Your task to perform on an android device: Do I have any events tomorrow? Image 0: 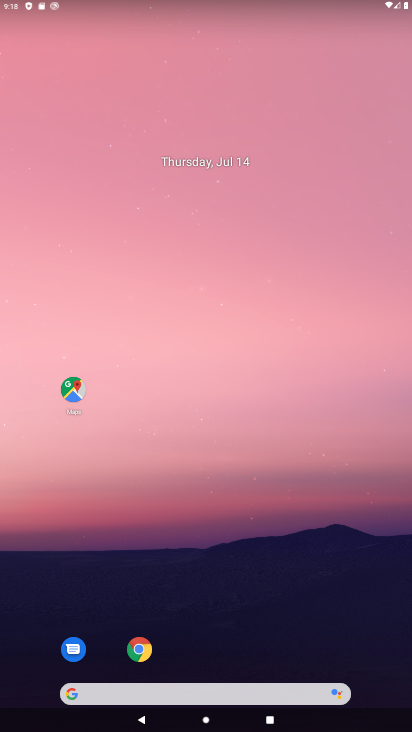
Step 0: drag from (211, 636) to (227, 247)
Your task to perform on an android device: Do I have any events tomorrow? Image 1: 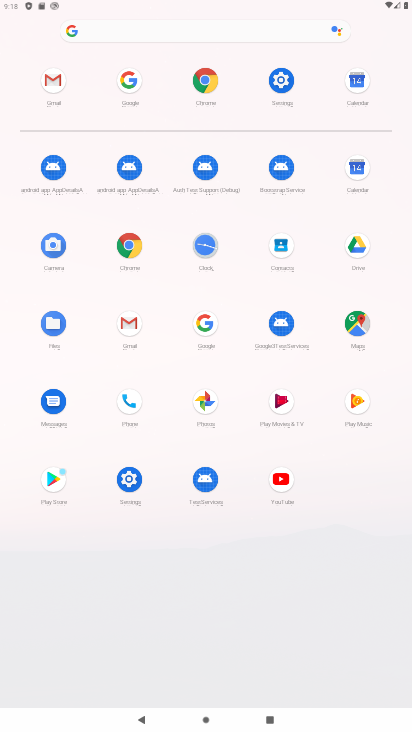
Step 1: click (356, 168)
Your task to perform on an android device: Do I have any events tomorrow? Image 2: 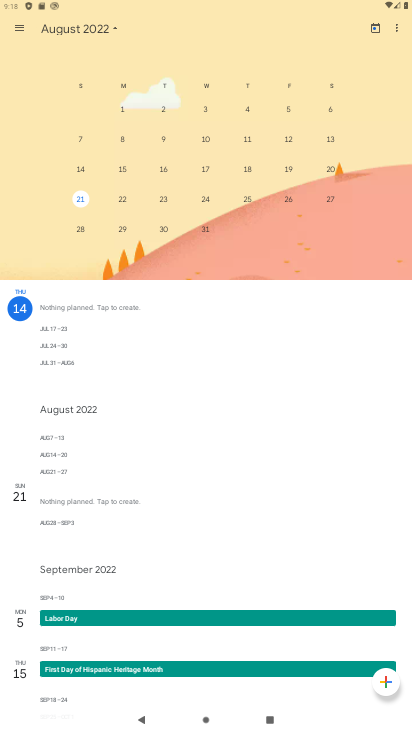
Step 2: task complete